Your task to perform on an android device: empty trash in the gmail app Image 0: 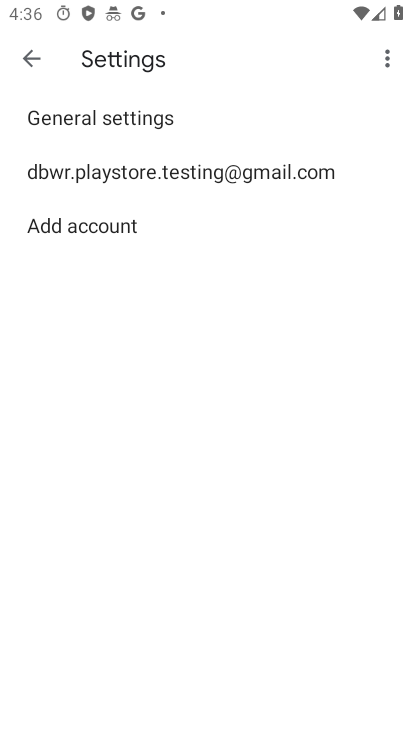
Step 0: click (34, 59)
Your task to perform on an android device: empty trash in the gmail app Image 1: 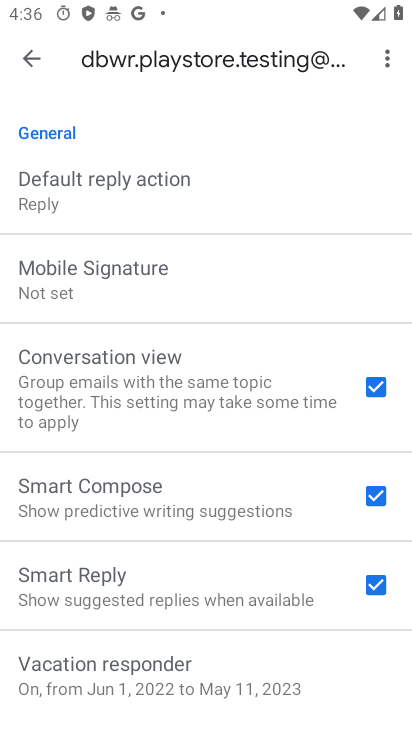
Step 1: click (31, 69)
Your task to perform on an android device: empty trash in the gmail app Image 2: 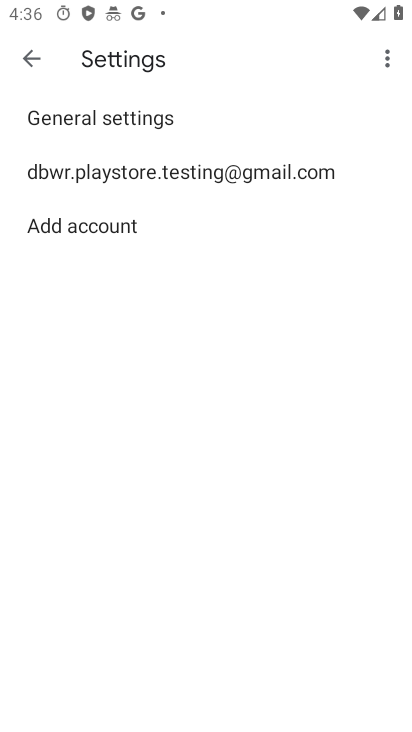
Step 2: click (26, 66)
Your task to perform on an android device: empty trash in the gmail app Image 3: 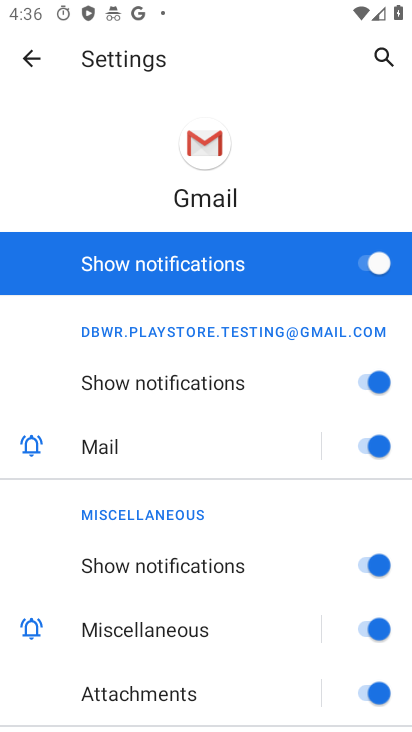
Step 3: click (33, 48)
Your task to perform on an android device: empty trash in the gmail app Image 4: 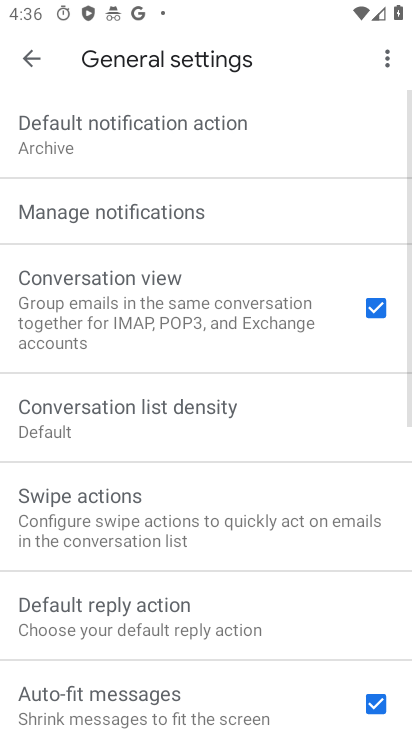
Step 4: click (33, 48)
Your task to perform on an android device: empty trash in the gmail app Image 5: 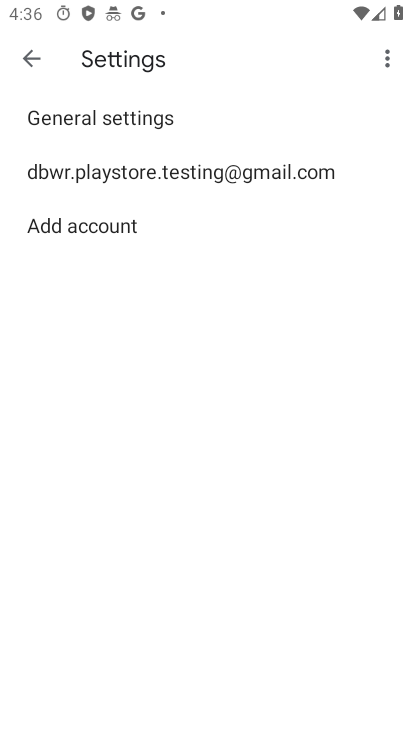
Step 5: click (32, 51)
Your task to perform on an android device: empty trash in the gmail app Image 6: 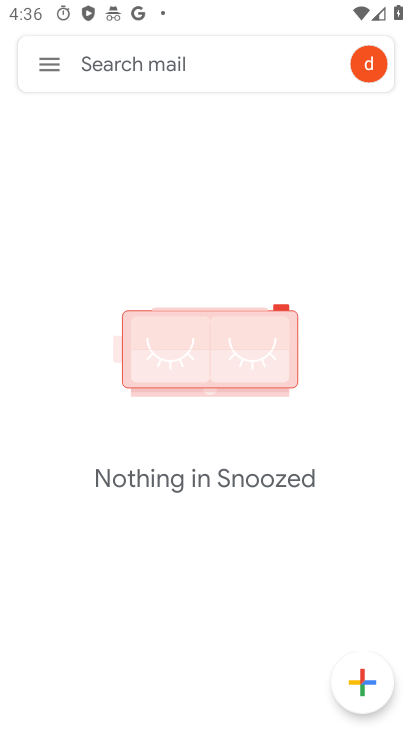
Step 6: click (50, 60)
Your task to perform on an android device: empty trash in the gmail app Image 7: 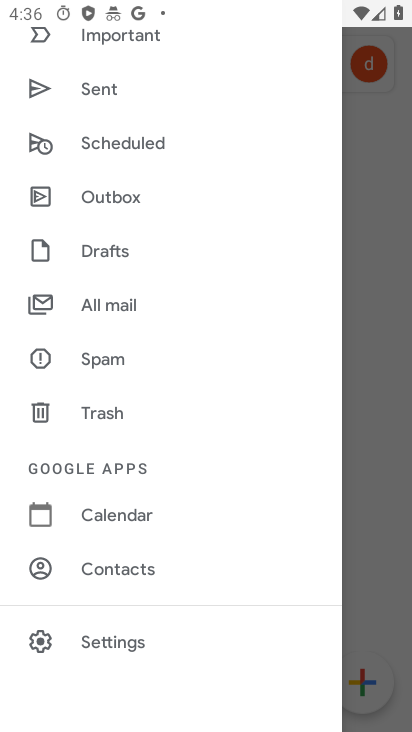
Step 7: click (77, 407)
Your task to perform on an android device: empty trash in the gmail app Image 8: 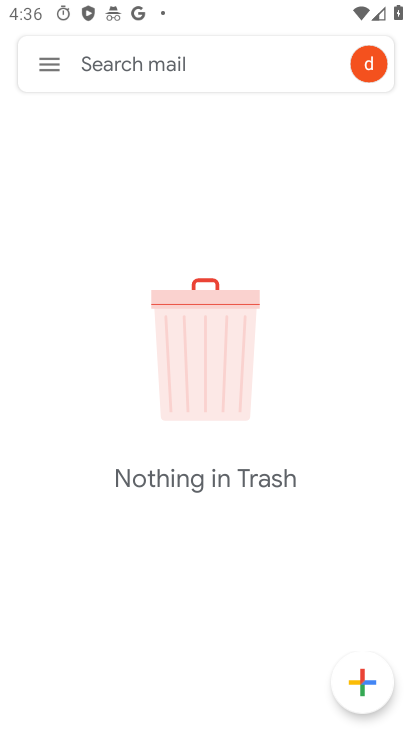
Step 8: task complete